Your task to perform on an android device: Go to settings Image 0: 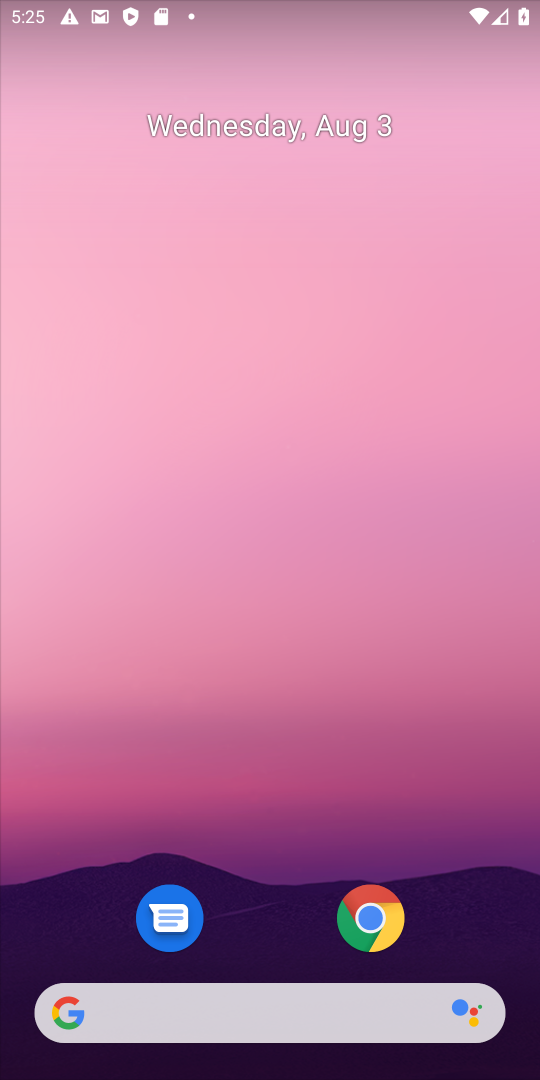
Step 0: drag from (289, 986) to (195, 353)
Your task to perform on an android device: Go to settings Image 1: 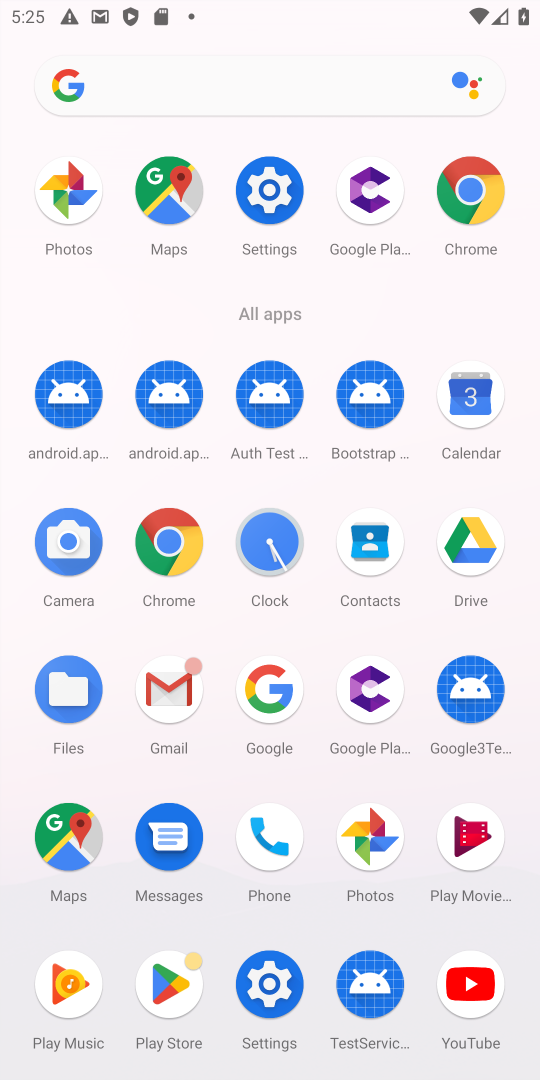
Step 1: click (287, 202)
Your task to perform on an android device: Go to settings Image 2: 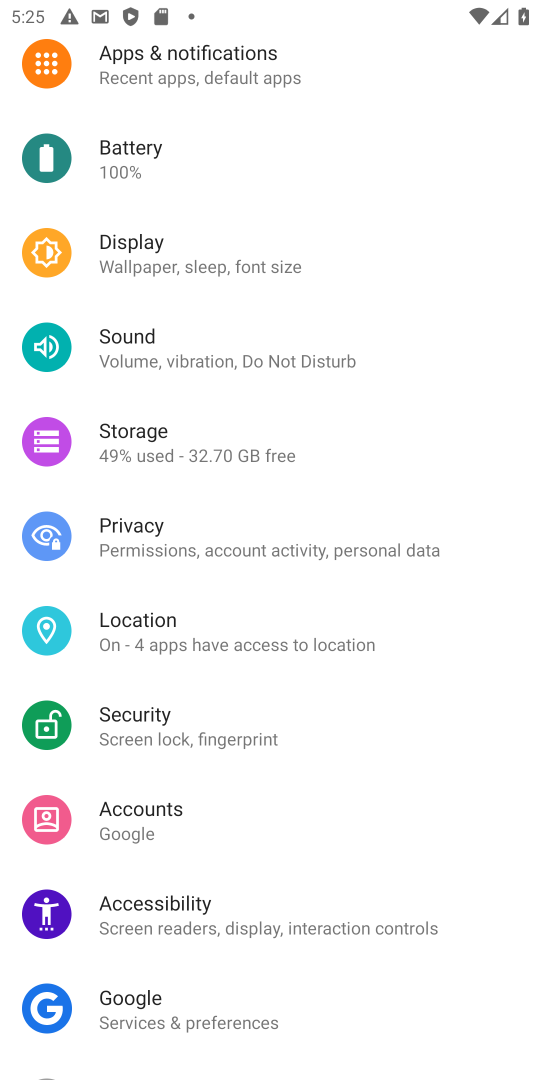
Step 2: task complete